Your task to perform on an android device: toggle pop-ups in chrome Image 0: 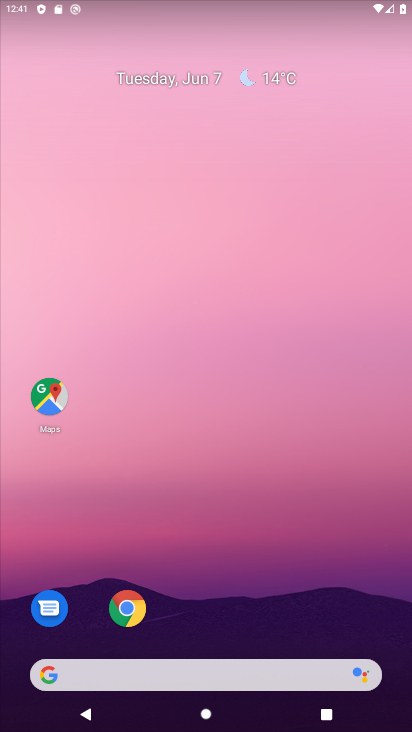
Step 0: click (128, 607)
Your task to perform on an android device: toggle pop-ups in chrome Image 1: 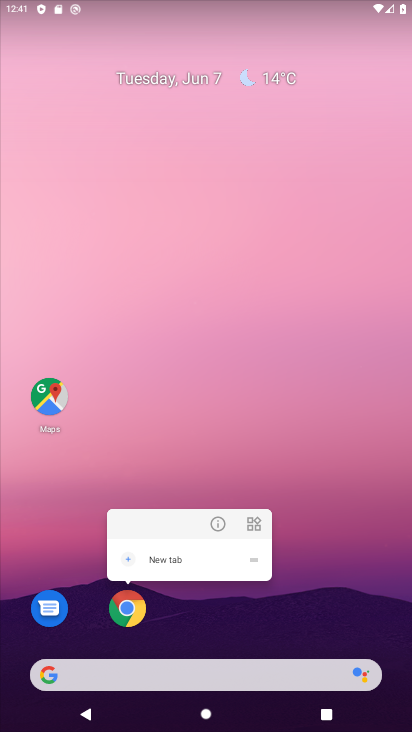
Step 1: click (124, 609)
Your task to perform on an android device: toggle pop-ups in chrome Image 2: 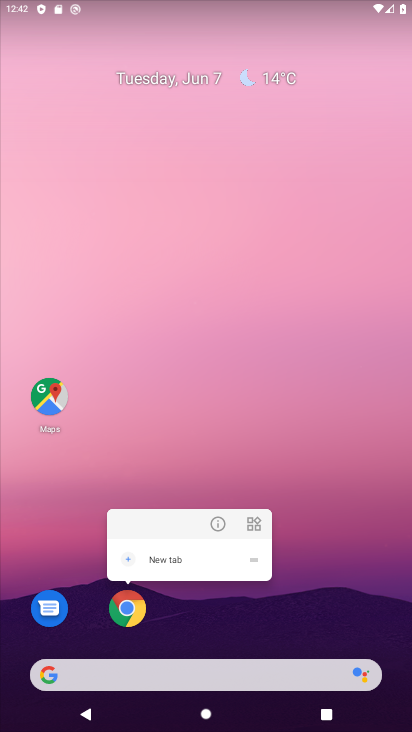
Step 2: click (126, 616)
Your task to perform on an android device: toggle pop-ups in chrome Image 3: 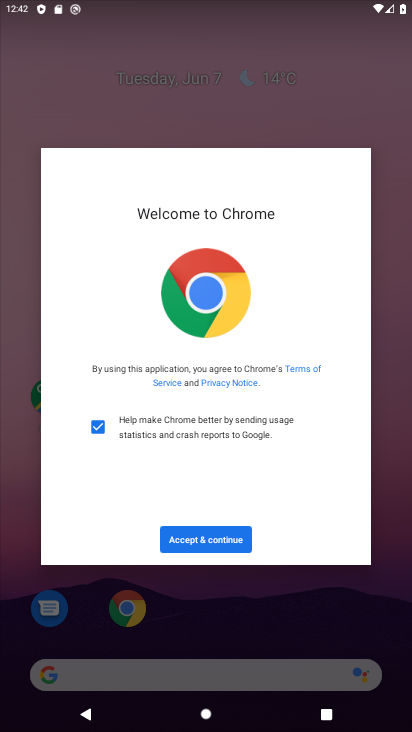
Step 3: click (214, 534)
Your task to perform on an android device: toggle pop-ups in chrome Image 4: 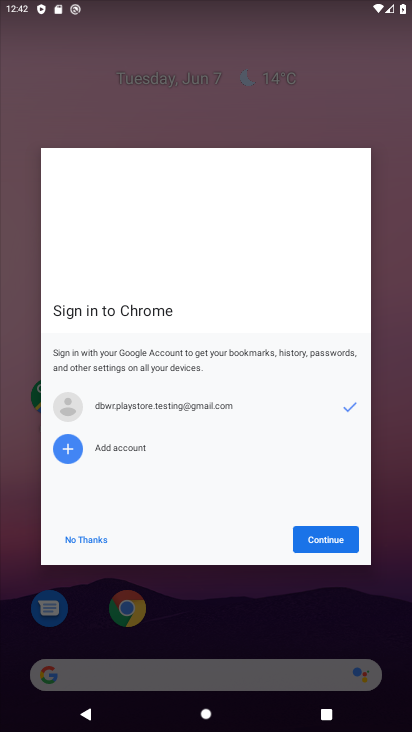
Step 4: click (317, 538)
Your task to perform on an android device: toggle pop-ups in chrome Image 5: 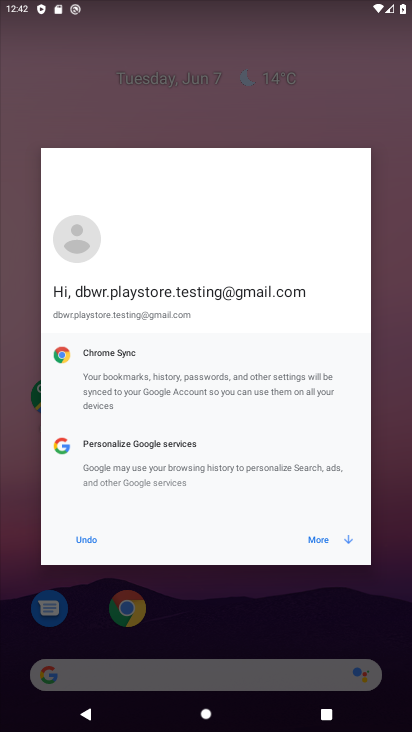
Step 5: click (317, 538)
Your task to perform on an android device: toggle pop-ups in chrome Image 6: 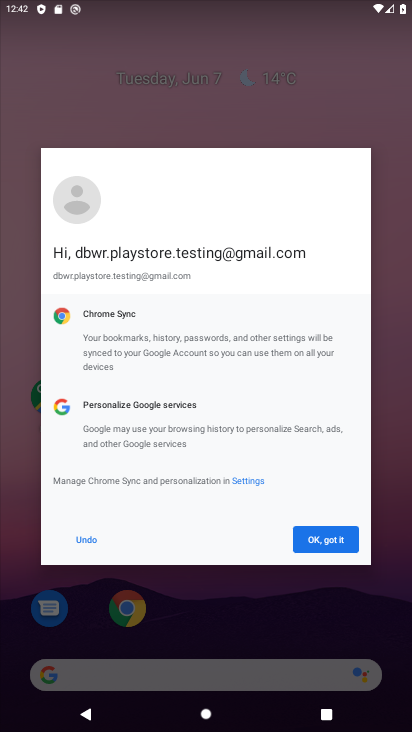
Step 6: click (332, 536)
Your task to perform on an android device: toggle pop-ups in chrome Image 7: 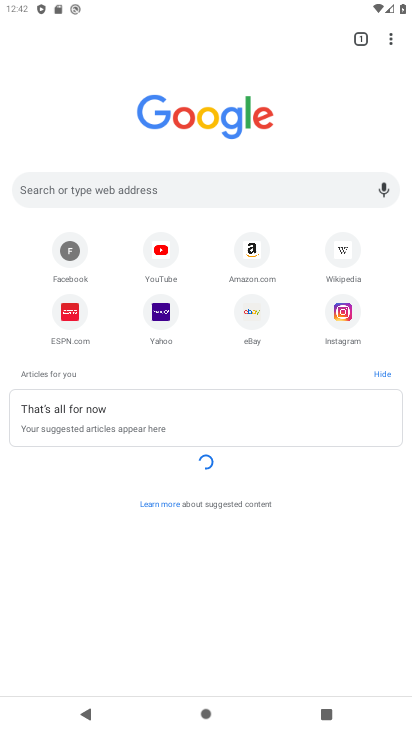
Step 7: click (395, 35)
Your task to perform on an android device: toggle pop-ups in chrome Image 8: 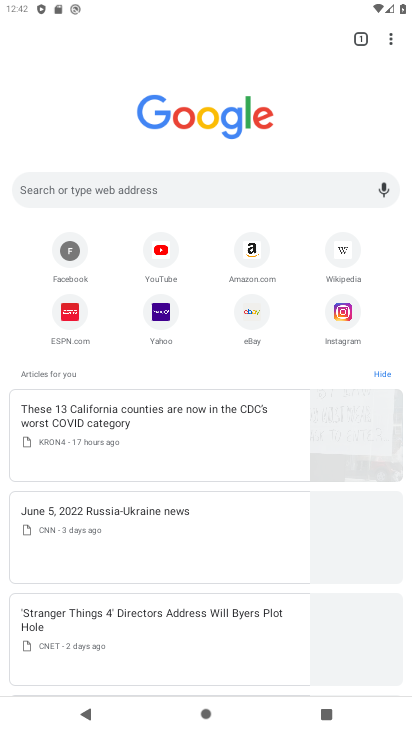
Step 8: drag from (396, 37) to (255, 320)
Your task to perform on an android device: toggle pop-ups in chrome Image 9: 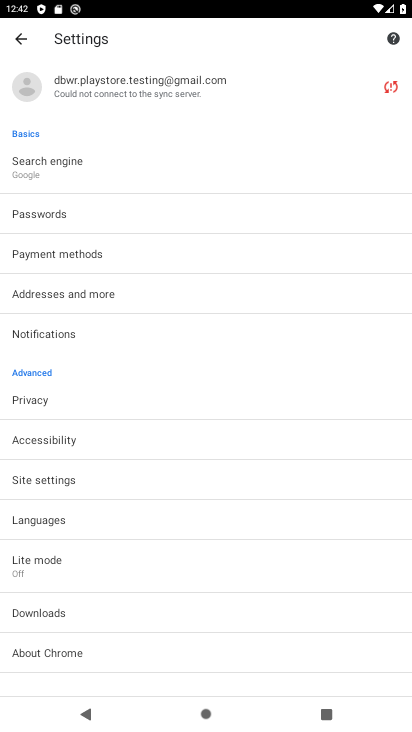
Step 9: click (52, 482)
Your task to perform on an android device: toggle pop-ups in chrome Image 10: 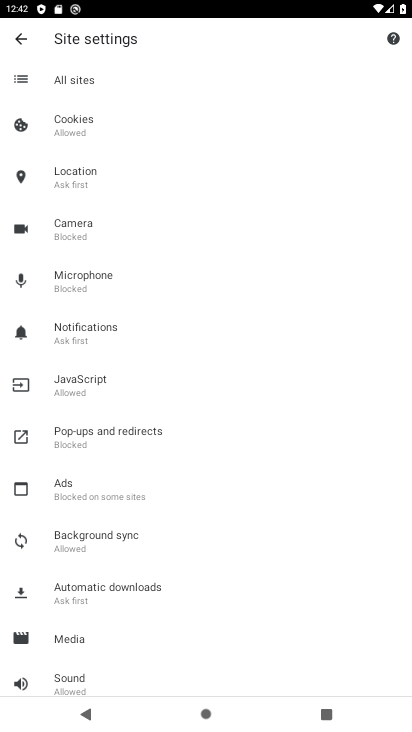
Step 10: click (119, 433)
Your task to perform on an android device: toggle pop-ups in chrome Image 11: 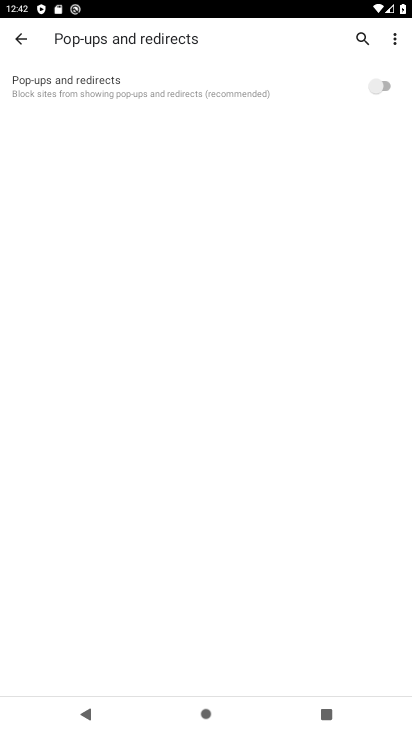
Step 11: click (380, 84)
Your task to perform on an android device: toggle pop-ups in chrome Image 12: 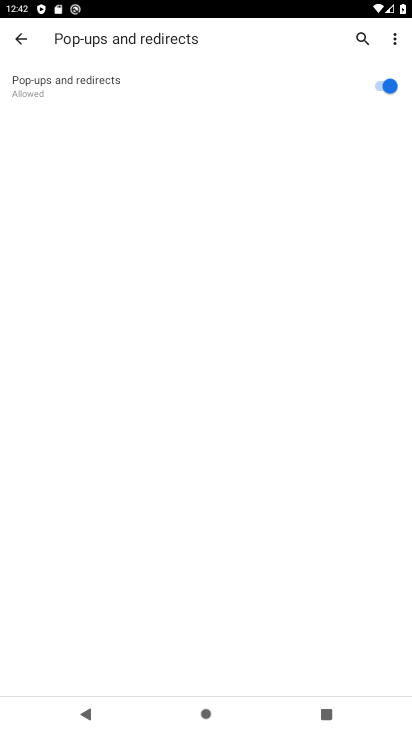
Step 12: task complete